Your task to perform on an android device: Open Chrome and go to settings Image 0: 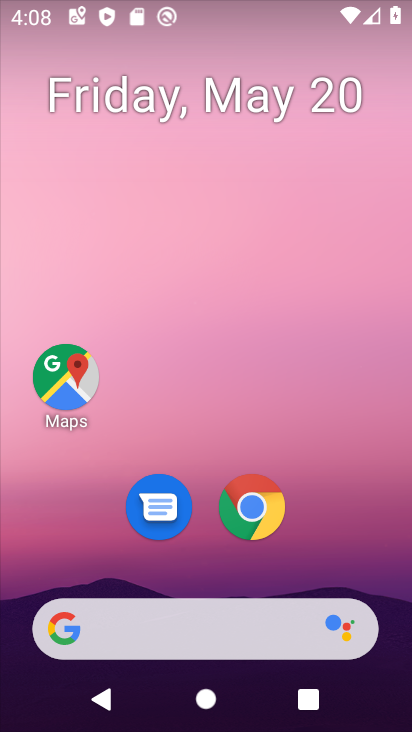
Step 0: click (252, 505)
Your task to perform on an android device: Open Chrome and go to settings Image 1: 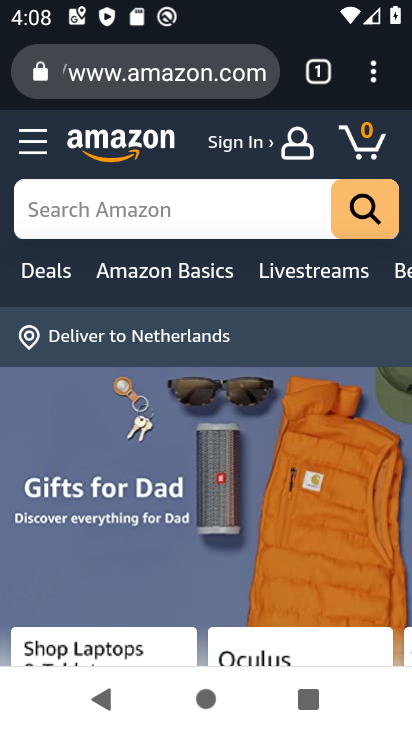
Step 1: click (373, 73)
Your task to perform on an android device: Open Chrome and go to settings Image 2: 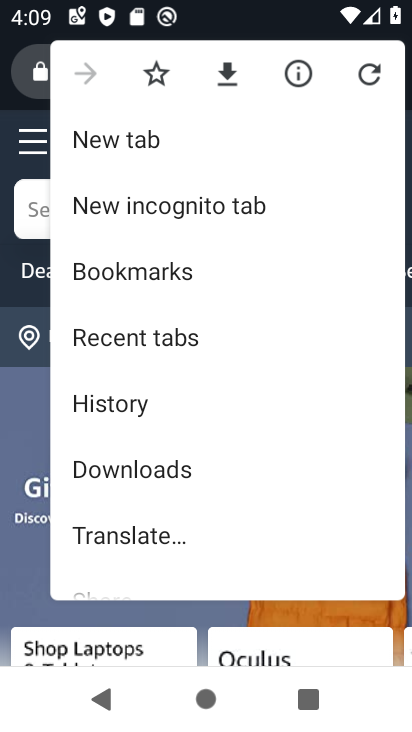
Step 2: drag from (155, 391) to (176, 298)
Your task to perform on an android device: Open Chrome and go to settings Image 3: 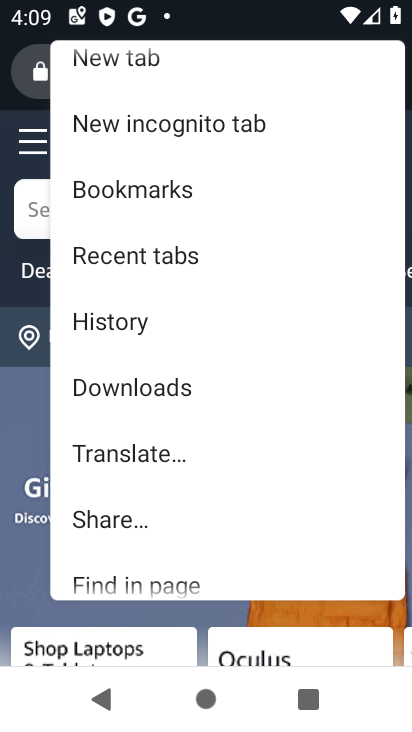
Step 3: drag from (108, 465) to (164, 354)
Your task to perform on an android device: Open Chrome and go to settings Image 4: 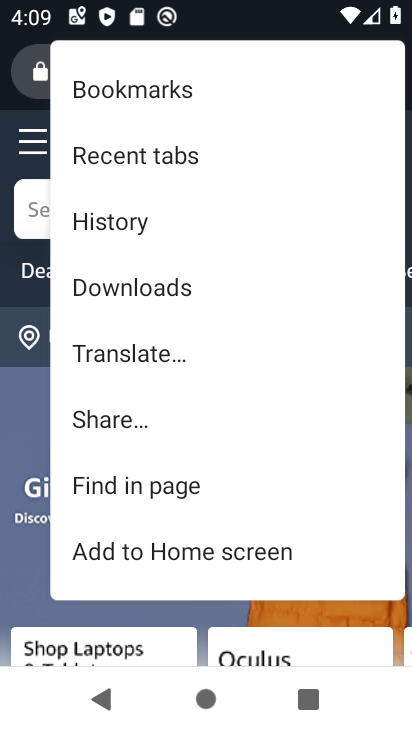
Step 4: drag from (128, 439) to (185, 348)
Your task to perform on an android device: Open Chrome and go to settings Image 5: 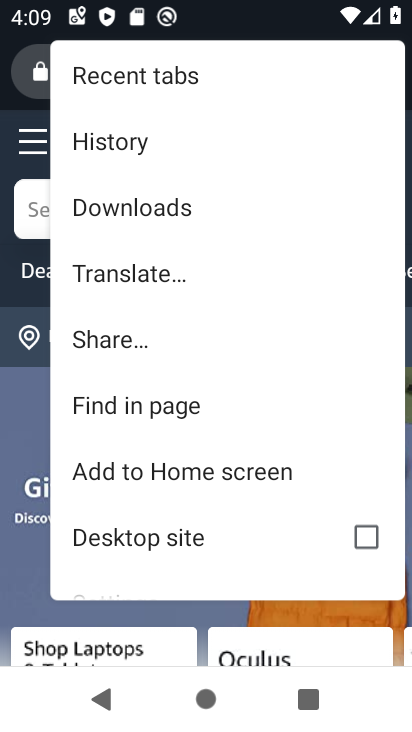
Step 5: drag from (125, 502) to (162, 396)
Your task to perform on an android device: Open Chrome and go to settings Image 6: 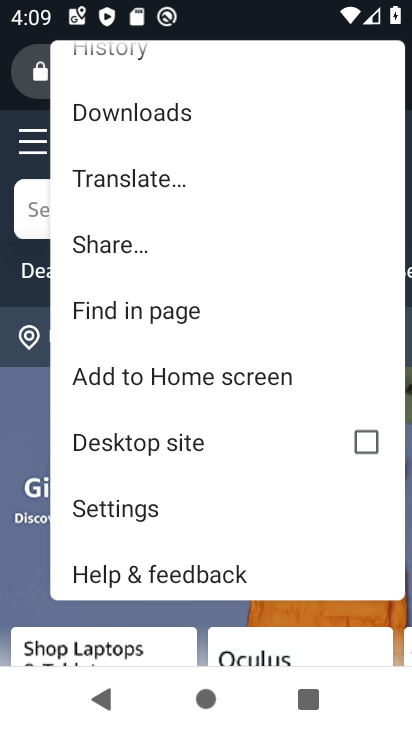
Step 6: click (108, 515)
Your task to perform on an android device: Open Chrome and go to settings Image 7: 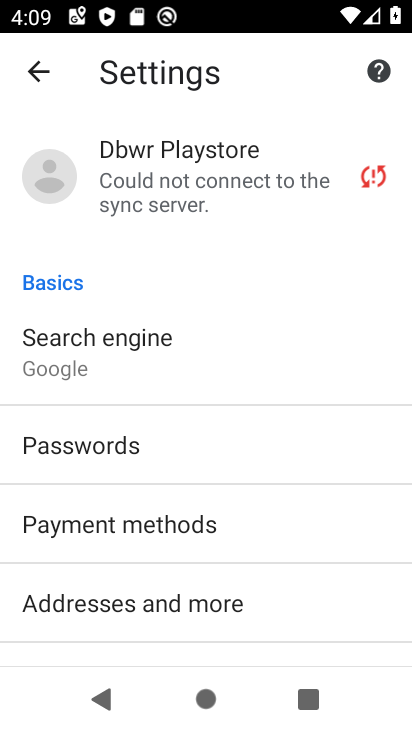
Step 7: task complete